Your task to perform on an android device: Open the phone app and click the voicemail tab. Image 0: 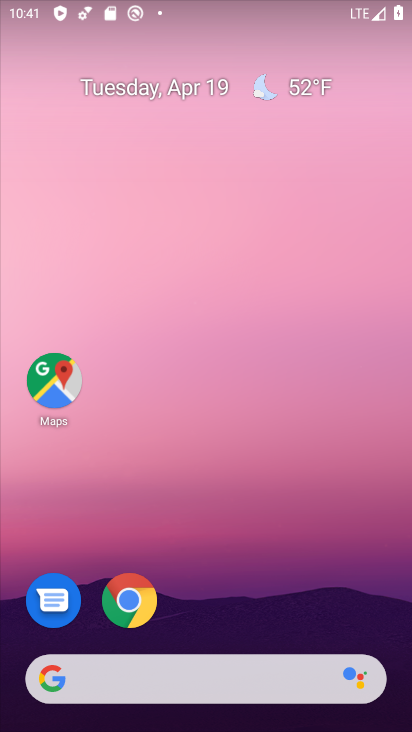
Step 0: drag from (285, 498) to (256, 233)
Your task to perform on an android device: Open the phone app and click the voicemail tab. Image 1: 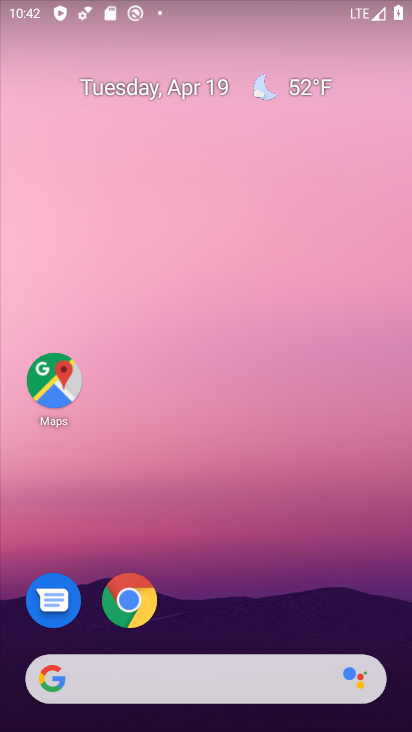
Step 1: drag from (319, 586) to (285, 24)
Your task to perform on an android device: Open the phone app and click the voicemail tab. Image 2: 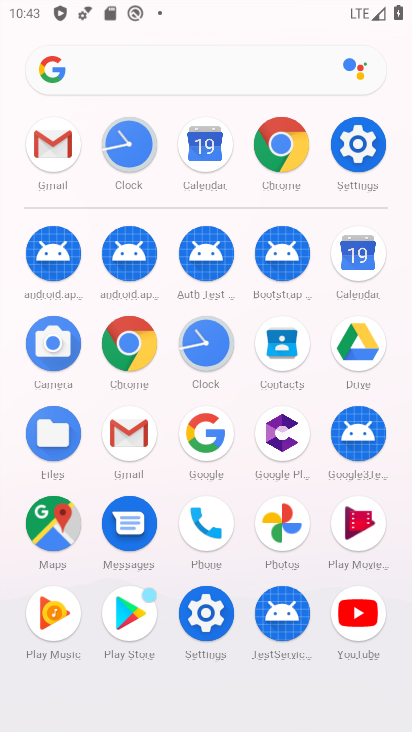
Step 2: click (219, 513)
Your task to perform on an android device: Open the phone app and click the voicemail tab. Image 3: 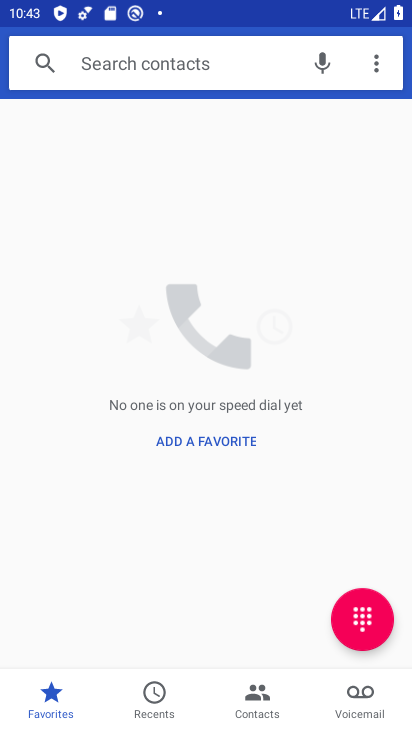
Step 3: click (375, 704)
Your task to perform on an android device: Open the phone app and click the voicemail tab. Image 4: 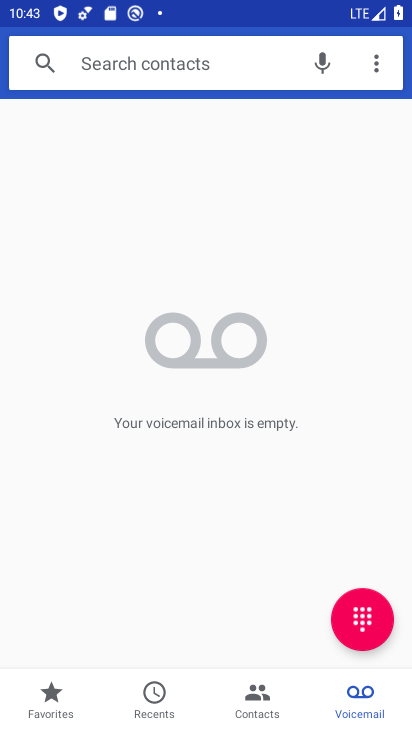
Step 4: task complete